Your task to perform on an android device: turn on javascript in the chrome app Image 0: 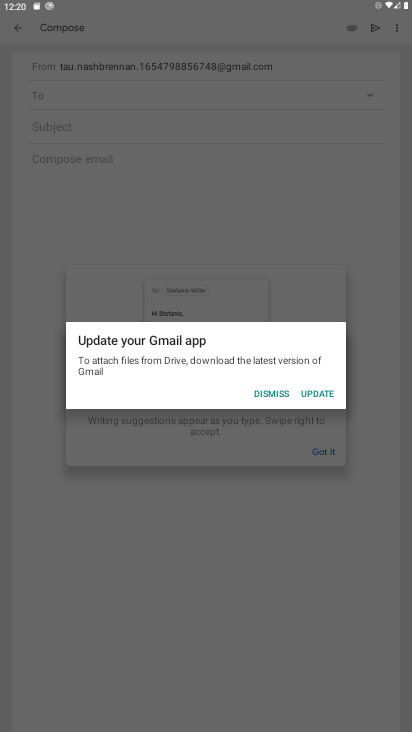
Step 0: press home button
Your task to perform on an android device: turn on javascript in the chrome app Image 1: 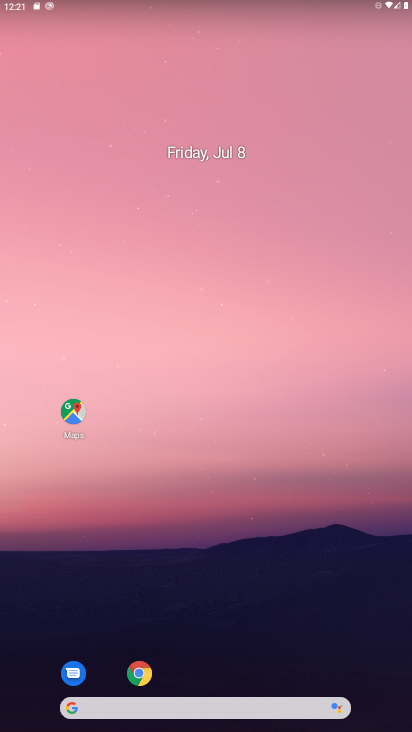
Step 1: click (136, 676)
Your task to perform on an android device: turn on javascript in the chrome app Image 2: 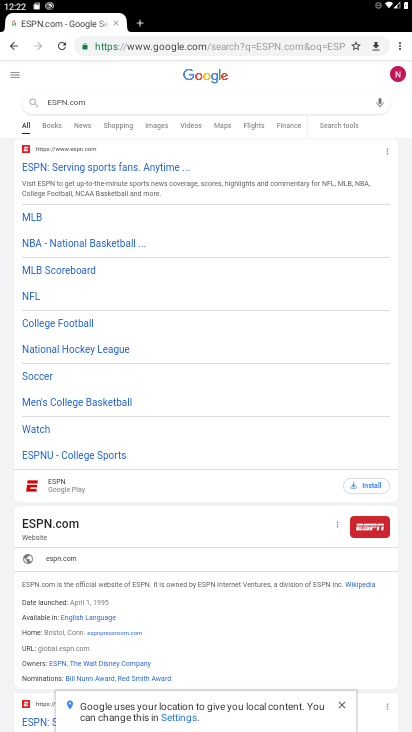
Step 2: click (398, 48)
Your task to perform on an android device: turn on javascript in the chrome app Image 3: 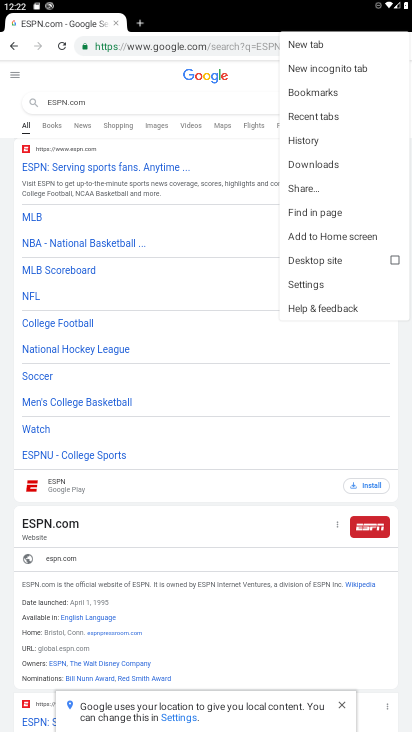
Step 3: click (309, 282)
Your task to perform on an android device: turn on javascript in the chrome app Image 4: 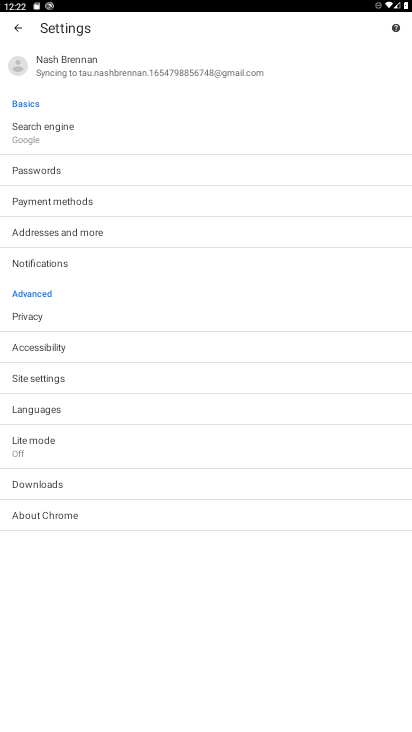
Step 4: click (30, 374)
Your task to perform on an android device: turn on javascript in the chrome app Image 5: 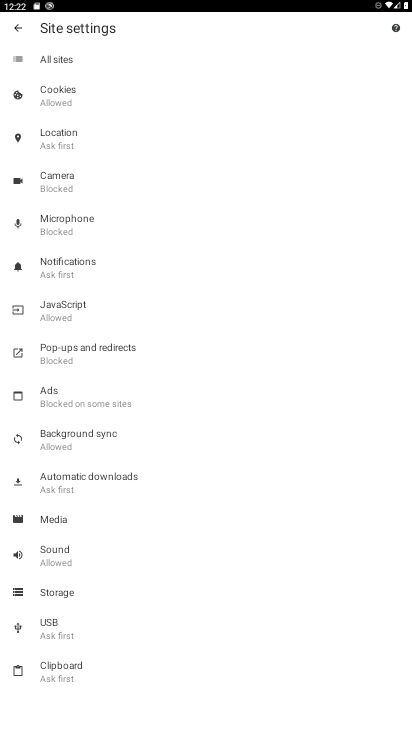
Step 5: click (54, 310)
Your task to perform on an android device: turn on javascript in the chrome app Image 6: 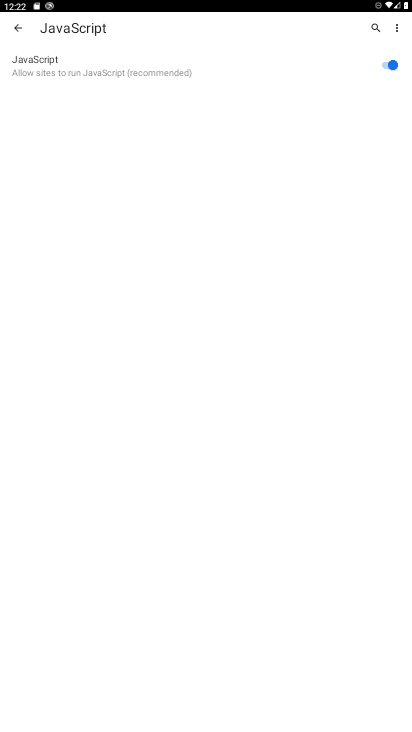
Step 6: task complete